Your task to perform on an android device: Go to settings Image 0: 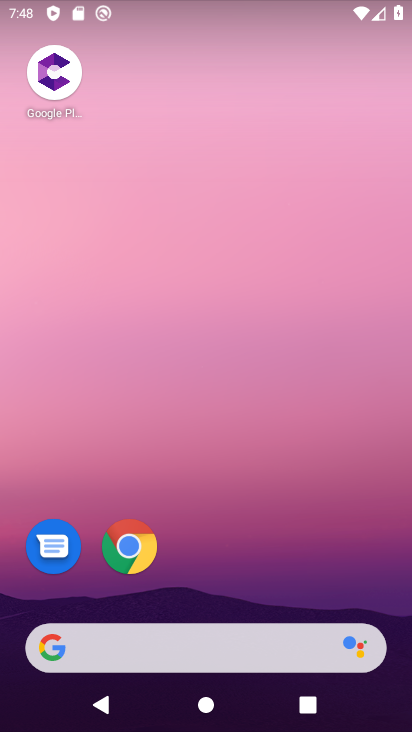
Step 0: drag from (226, 620) to (272, 216)
Your task to perform on an android device: Go to settings Image 1: 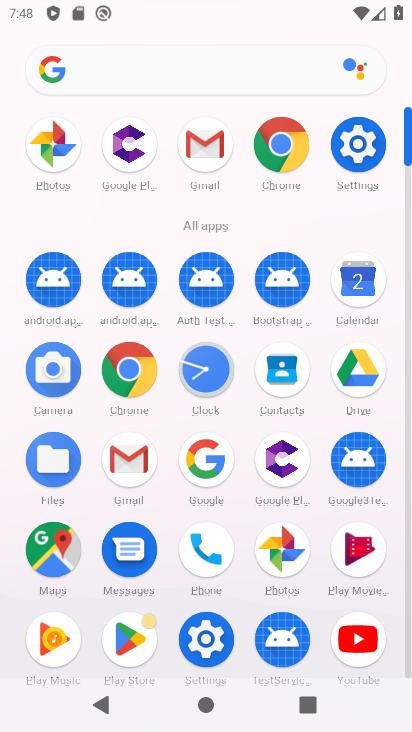
Step 1: click (348, 160)
Your task to perform on an android device: Go to settings Image 2: 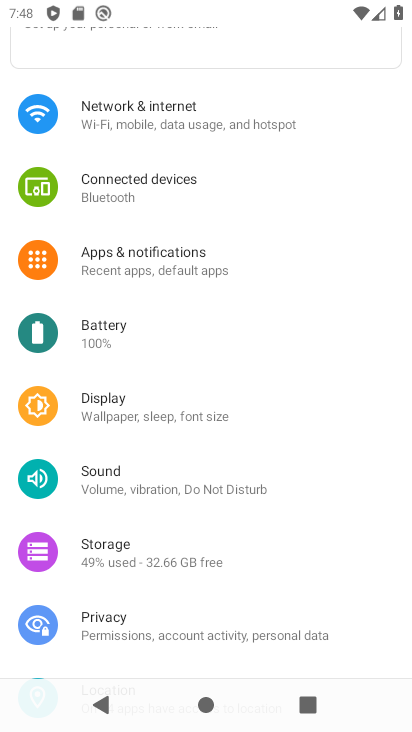
Step 2: task complete